Your task to perform on an android device: Check the weather Image 0: 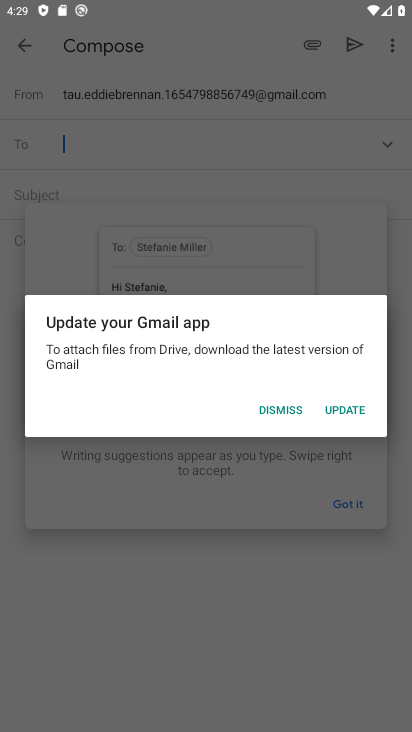
Step 0: press home button
Your task to perform on an android device: Check the weather Image 1: 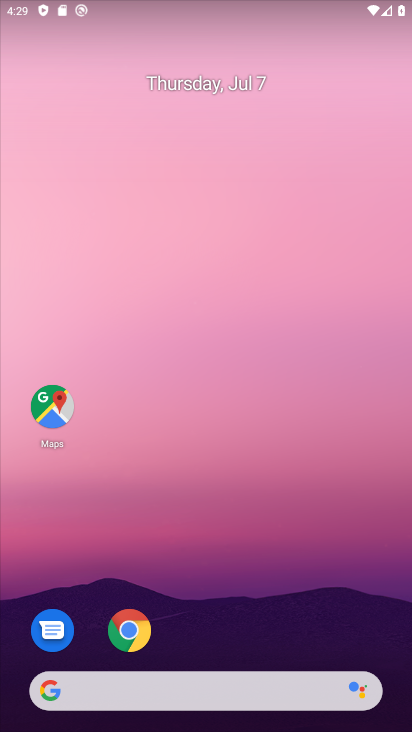
Step 1: drag from (259, 601) to (227, 270)
Your task to perform on an android device: Check the weather Image 2: 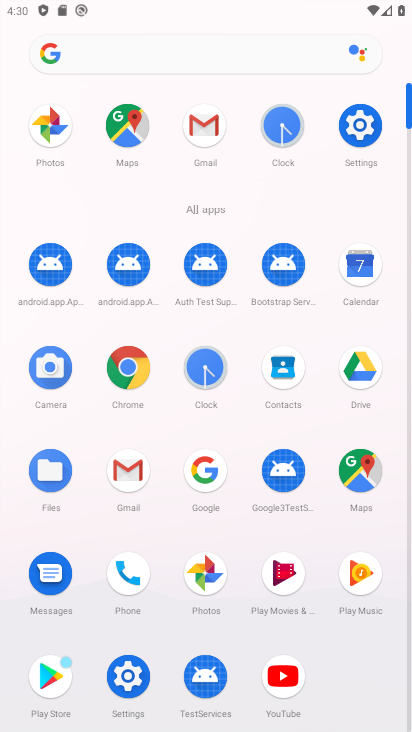
Step 2: click (125, 359)
Your task to perform on an android device: Check the weather Image 3: 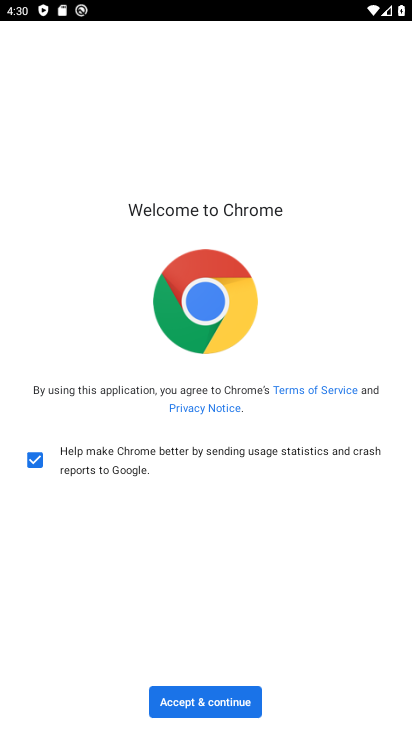
Step 3: click (218, 704)
Your task to perform on an android device: Check the weather Image 4: 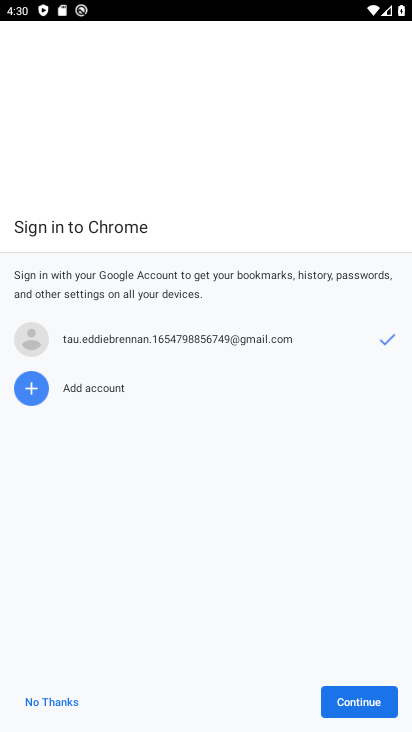
Step 4: click (332, 694)
Your task to perform on an android device: Check the weather Image 5: 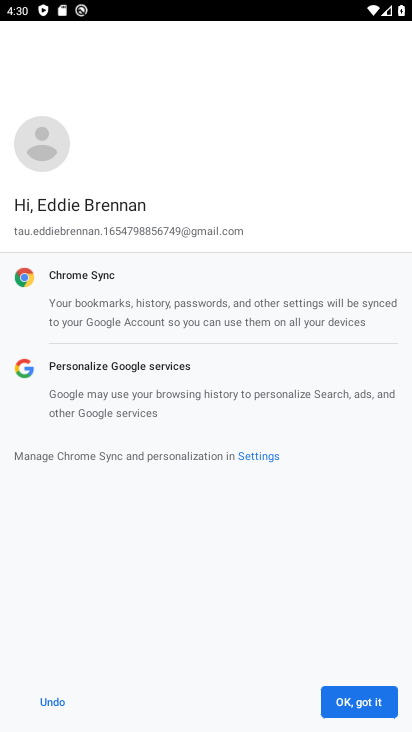
Step 5: click (332, 694)
Your task to perform on an android device: Check the weather Image 6: 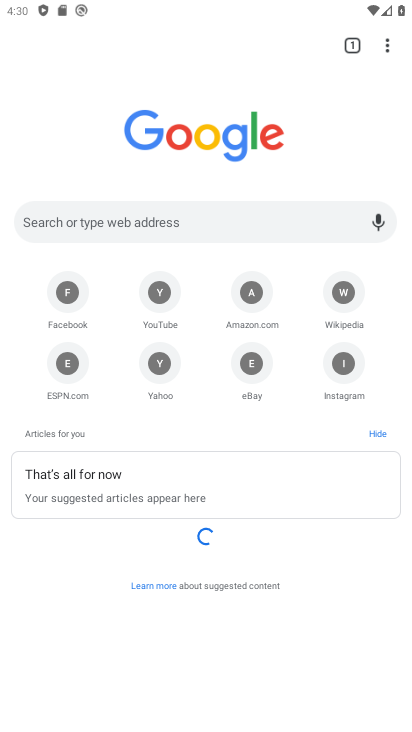
Step 6: click (176, 198)
Your task to perform on an android device: Check the weather Image 7: 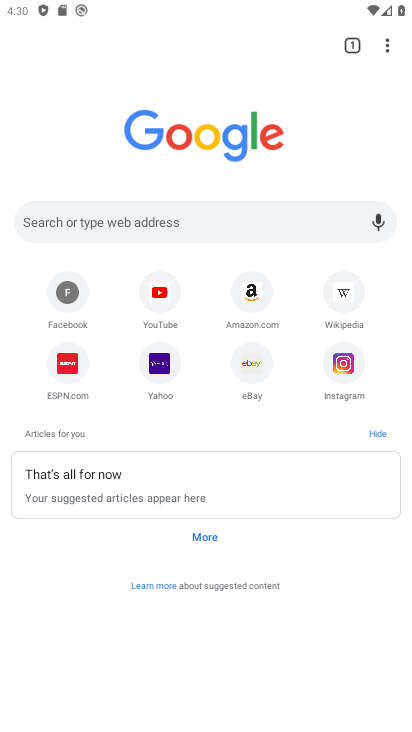
Step 7: type "Check the weather "
Your task to perform on an android device: Check the weather Image 8: 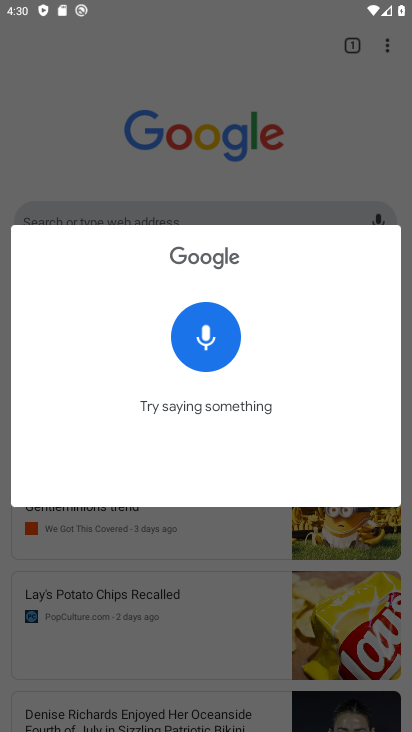
Step 8: click (350, 148)
Your task to perform on an android device: Check the weather Image 9: 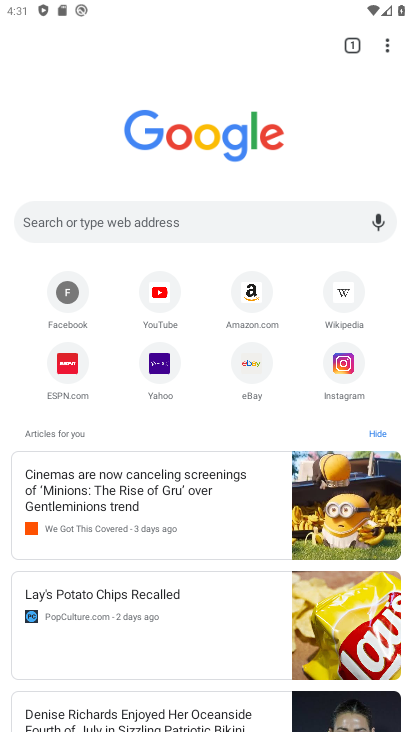
Step 9: click (108, 213)
Your task to perform on an android device: Check the weather Image 10: 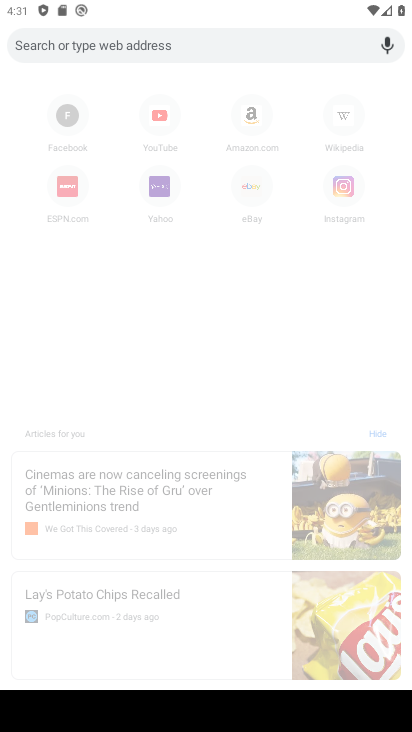
Step 10: type "Check the weather "
Your task to perform on an android device: Check the weather Image 11: 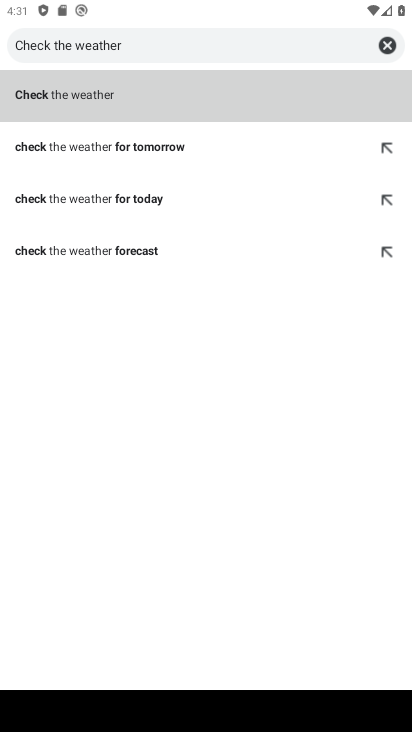
Step 11: click (226, 66)
Your task to perform on an android device: Check the weather Image 12: 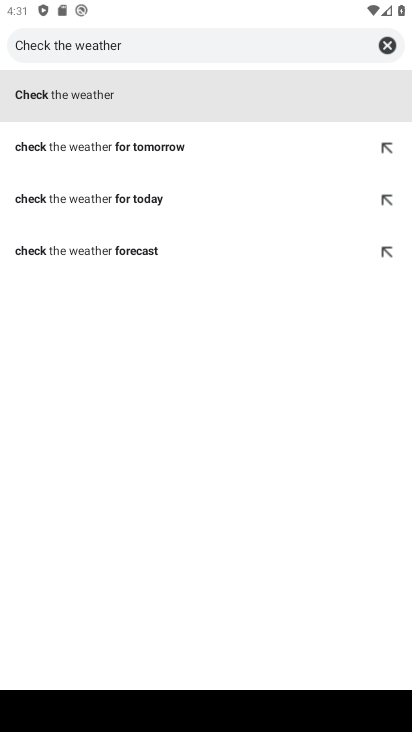
Step 12: click (224, 105)
Your task to perform on an android device: Check the weather Image 13: 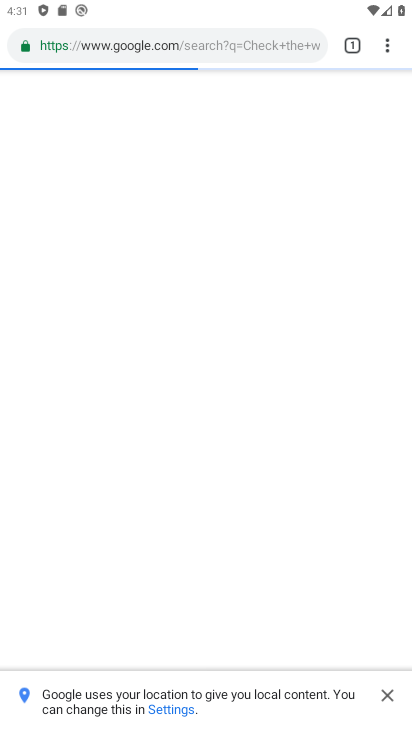
Step 13: task complete